Your task to perform on an android device: Open eBay Image 0: 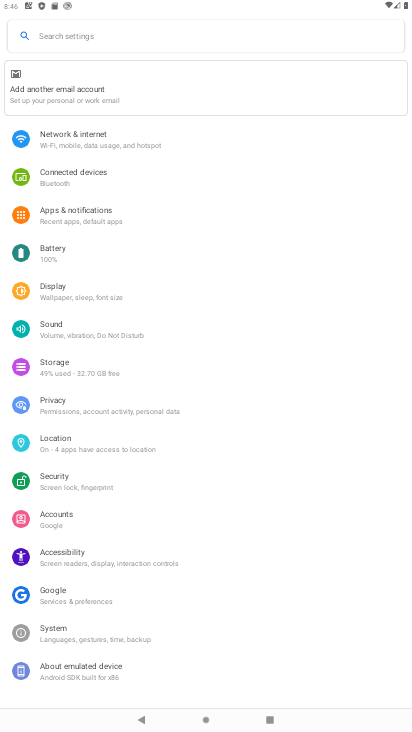
Step 0: press home button
Your task to perform on an android device: Open eBay Image 1: 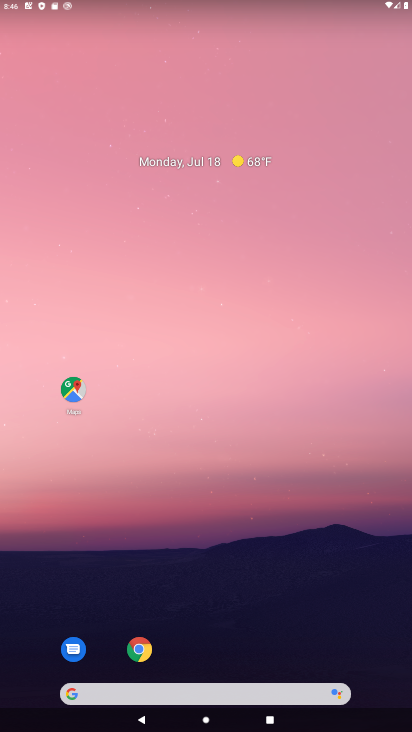
Step 1: click (235, 690)
Your task to perform on an android device: Open eBay Image 2: 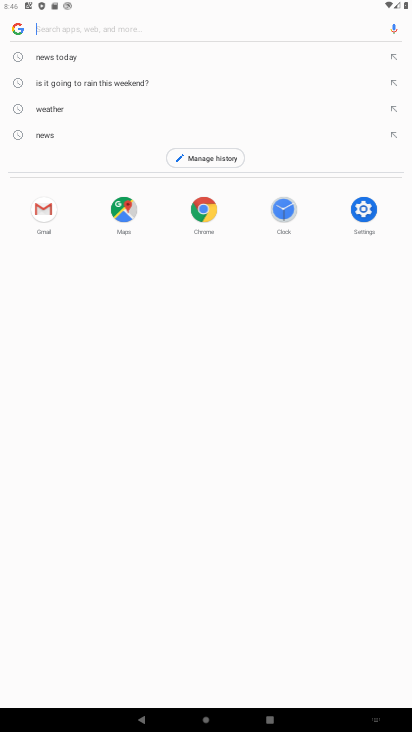
Step 2: type "ebay"
Your task to perform on an android device: Open eBay Image 3: 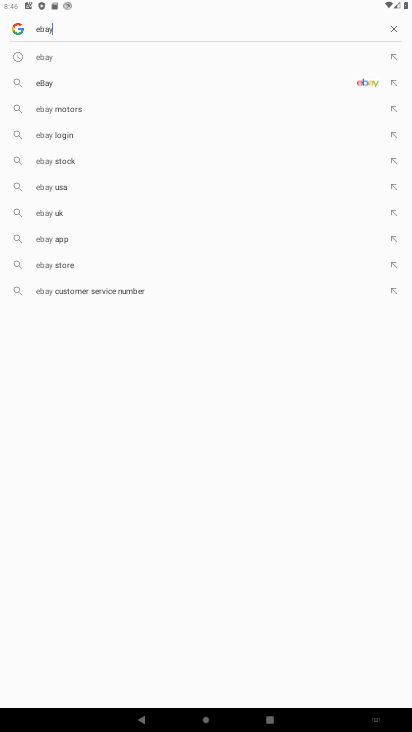
Step 3: click (344, 85)
Your task to perform on an android device: Open eBay Image 4: 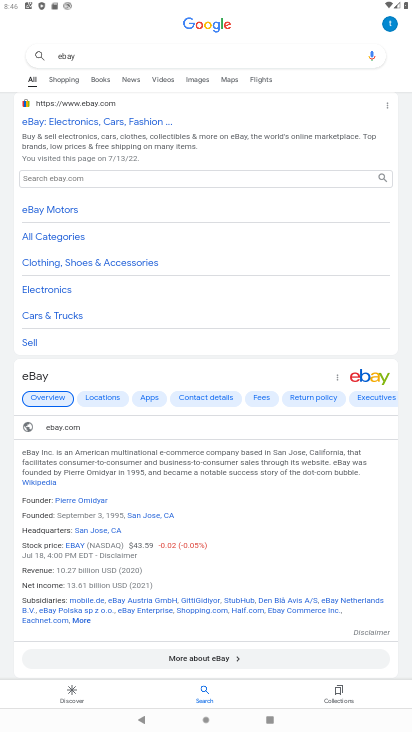
Step 4: click (72, 119)
Your task to perform on an android device: Open eBay Image 5: 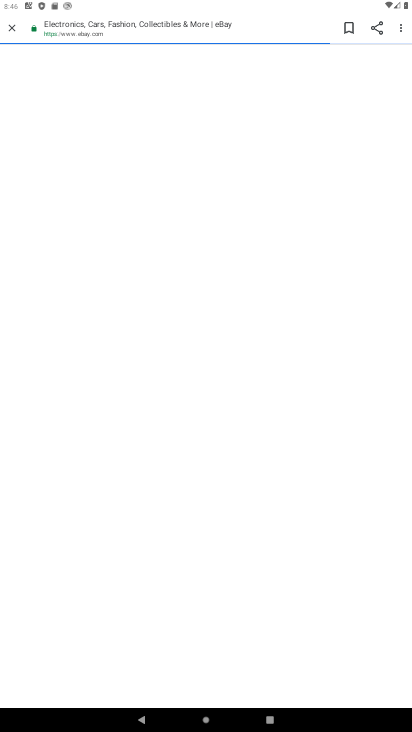
Step 5: task complete